Your task to perform on an android device: Open the phone app and click the voicemail tab. Image 0: 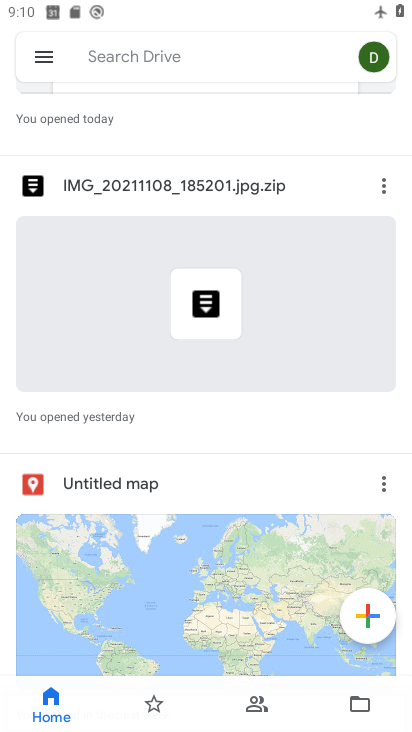
Step 0: drag from (198, 575) to (222, 239)
Your task to perform on an android device: Open the phone app and click the voicemail tab. Image 1: 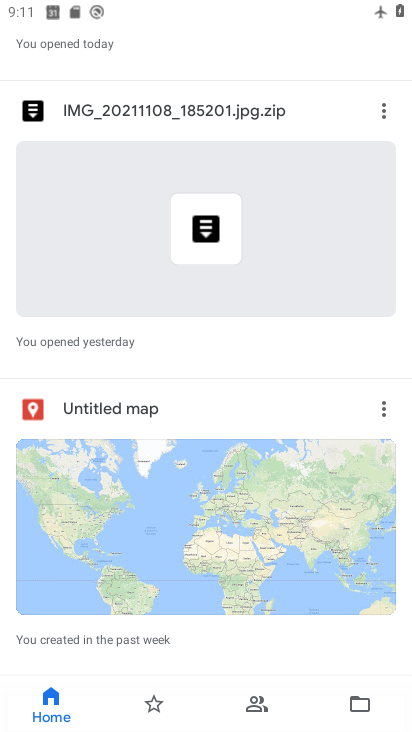
Step 1: press home button
Your task to perform on an android device: Open the phone app and click the voicemail tab. Image 2: 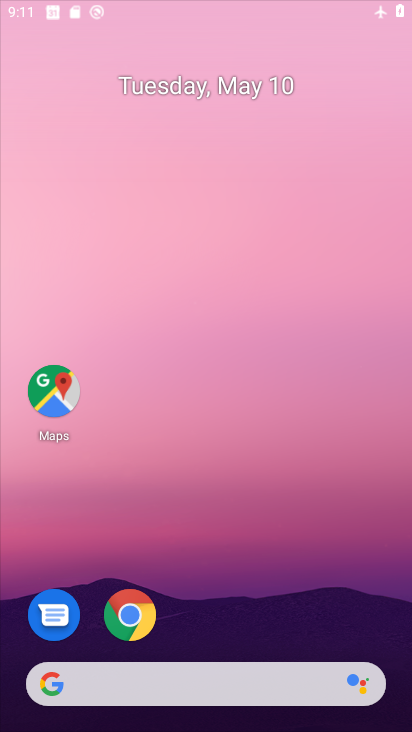
Step 2: drag from (143, 582) to (157, 184)
Your task to perform on an android device: Open the phone app and click the voicemail tab. Image 3: 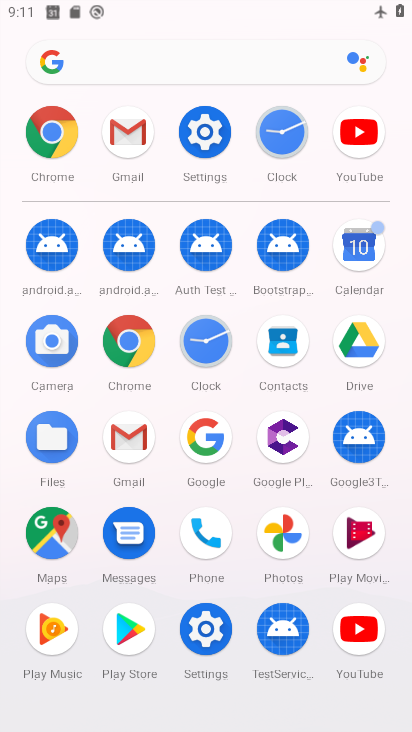
Step 3: click (186, 543)
Your task to perform on an android device: Open the phone app and click the voicemail tab. Image 4: 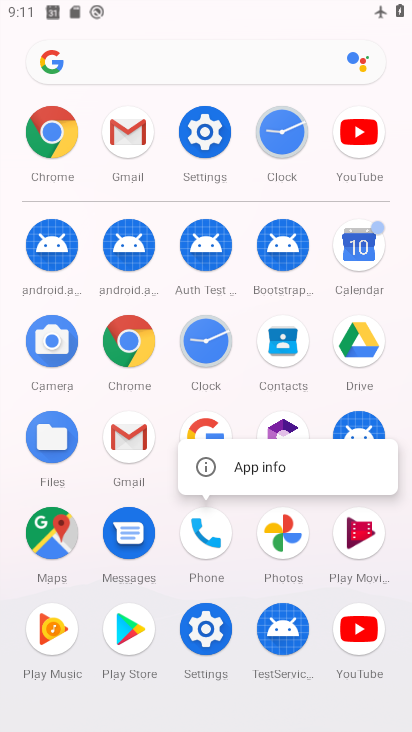
Step 4: click (243, 467)
Your task to perform on an android device: Open the phone app and click the voicemail tab. Image 5: 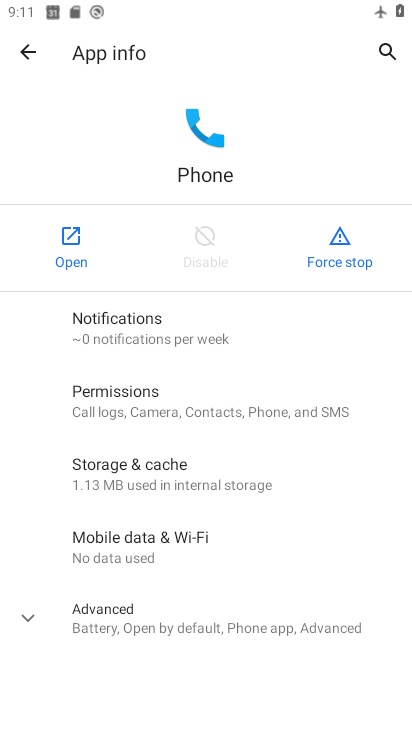
Step 5: drag from (157, 522) to (215, 187)
Your task to perform on an android device: Open the phone app and click the voicemail tab. Image 6: 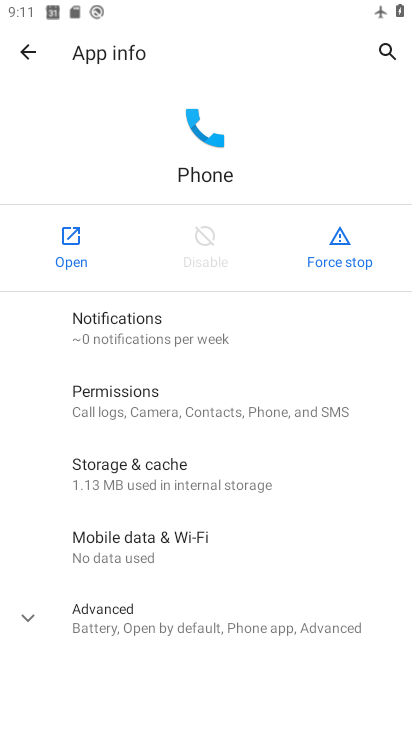
Step 6: click (68, 249)
Your task to perform on an android device: Open the phone app and click the voicemail tab. Image 7: 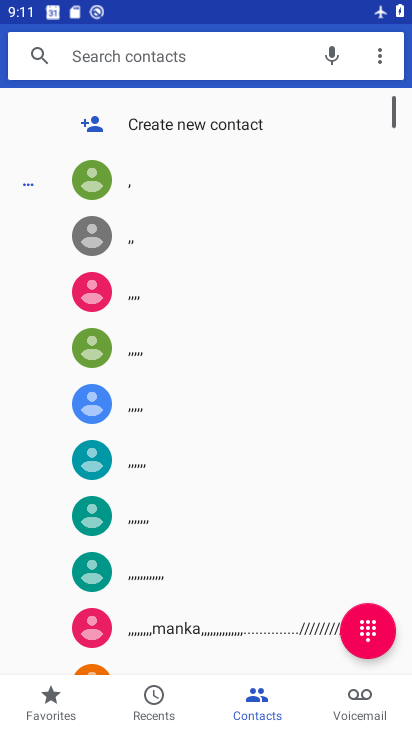
Step 7: click (354, 691)
Your task to perform on an android device: Open the phone app and click the voicemail tab. Image 8: 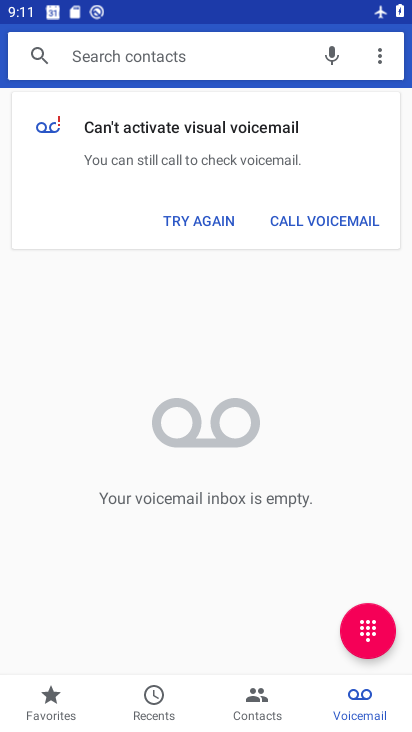
Step 8: task complete